Your task to perform on an android device: remove spam from my inbox in the gmail app Image 0: 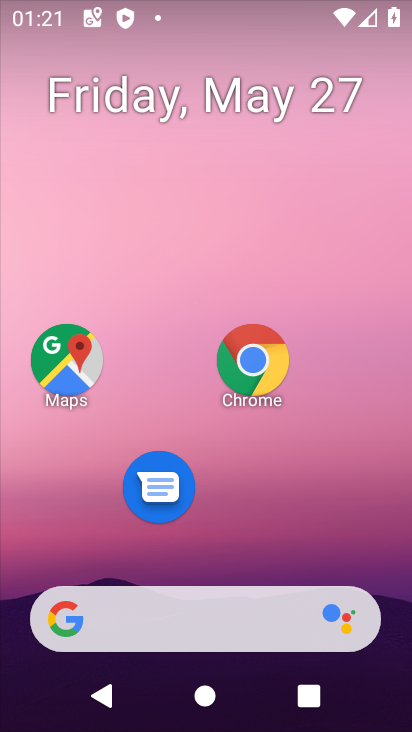
Step 0: drag from (249, 524) to (240, 91)
Your task to perform on an android device: remove spam from my inbox in the gmail app Image 1: 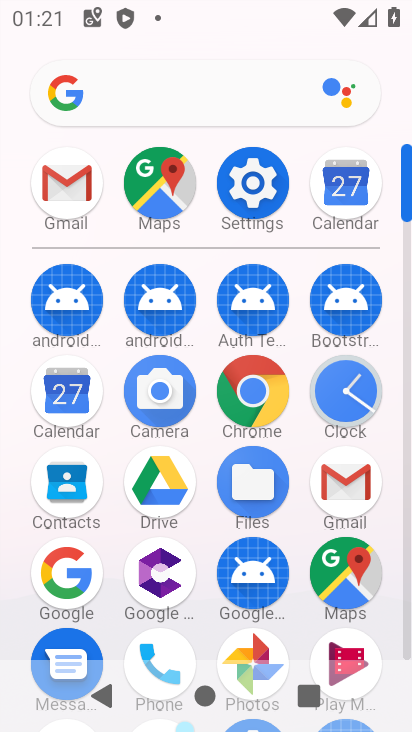
Step 1: click (349, 481)
Your task to perform on an android device: remove spam from my inbox in the gmail app Image 2: 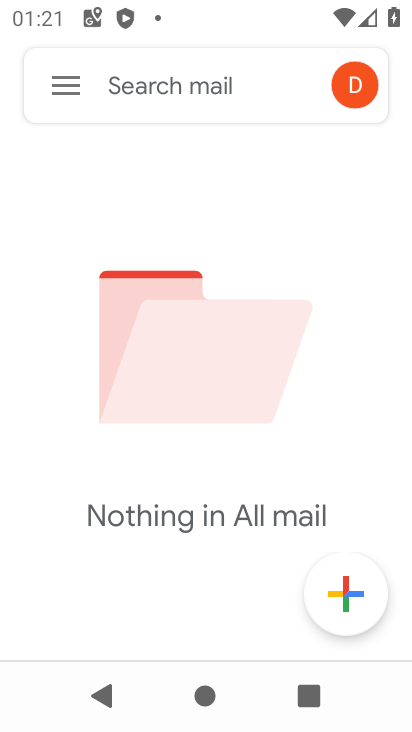
Step 2: click (60, 90)
Your task to perform on an android device: remove spam from my inbox in the gmail app Image 3: 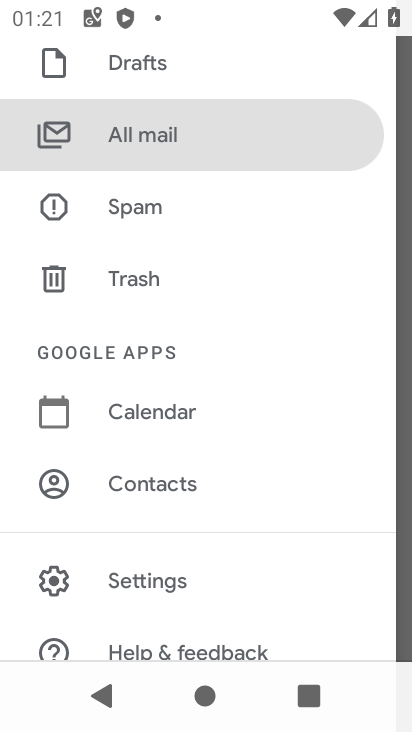
Step 3: drag from (155, 281) to (185, 386)
Your task to perform on an android device: remove spam from my inbox in the gmail app Image 4: 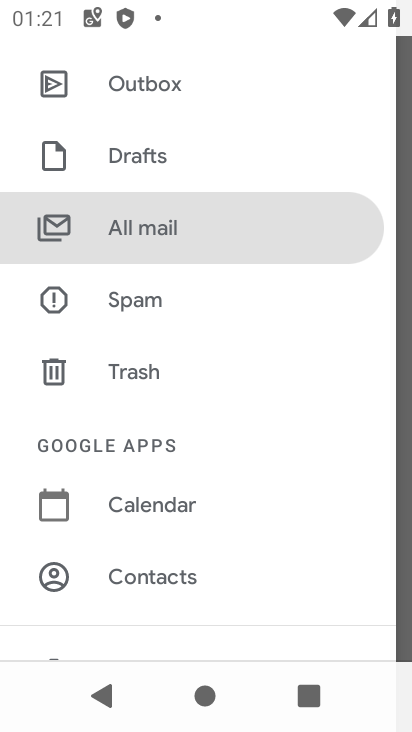
Step 4: click (130, 311)
Your task to perform on an android device: remove spam from my inbox in the gmail app Image 5: 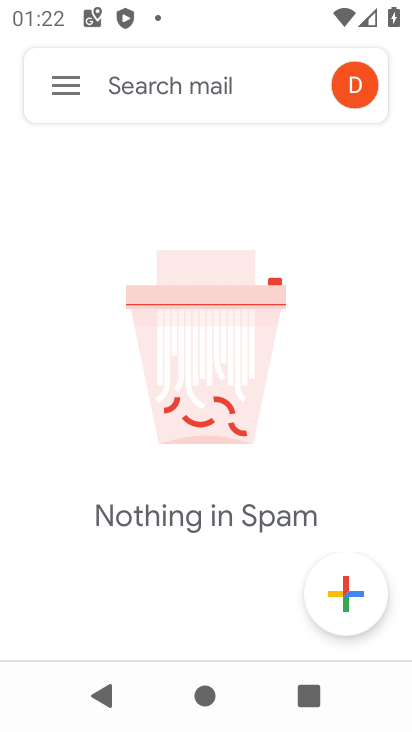
Step 5: task complete